Your task to perform on an android device: Open maps Image 0: 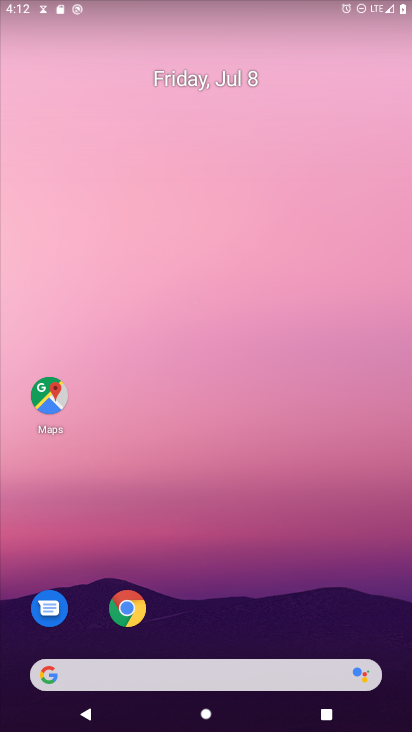
Step 0: drag from (348, 673) to (296, 0)
Your task to perform on an android device: Open maps Image 1: 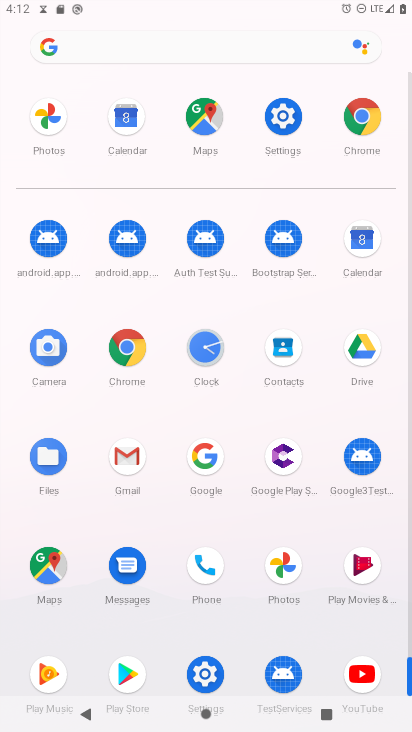
Step 1: click (46, 571)
Your task to perform on an android device: Open maps Image 2: 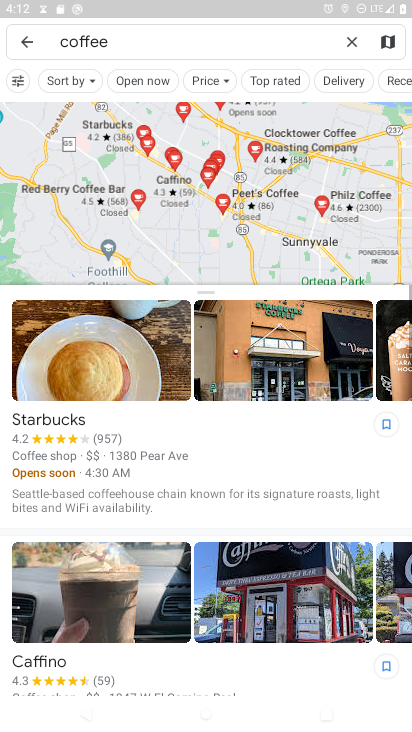
Step 2: press back button
Your task to perform on an android device: Open maps Image 3: 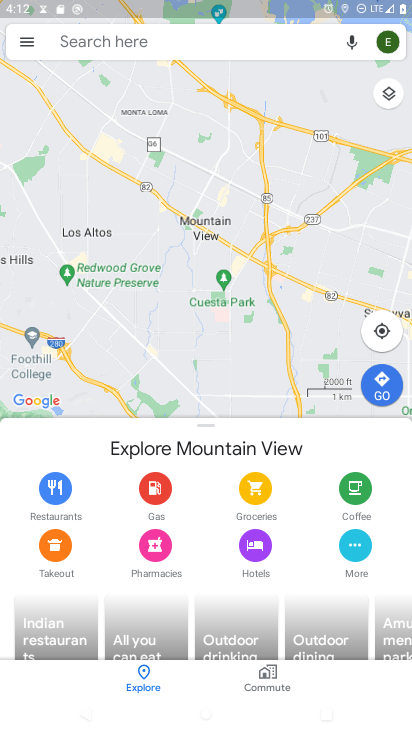
Step 3: press back button
Your task to perform on an android device: Open maps Image 4: 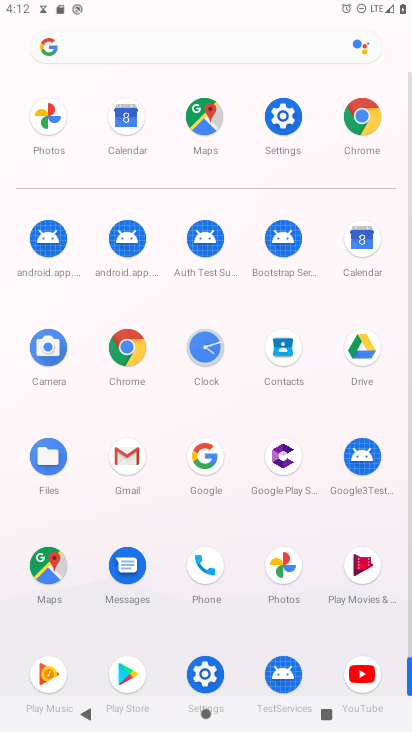
Step 4: click (46, 567)
Your task to perform on an android device: Open maps Image 5: 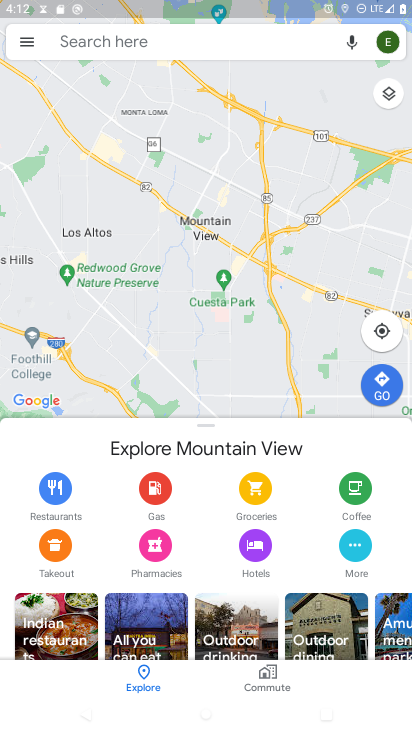
Step 5: task complete